Your task to perform on an android device: refresh tabs in the chrome app Image 0: 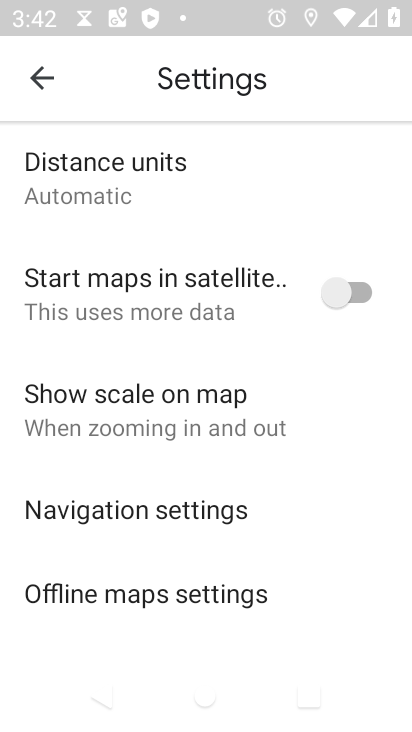
Step 0: press home button
Your task to perform on an android device: refresh tabs in the chrome app Image 1: 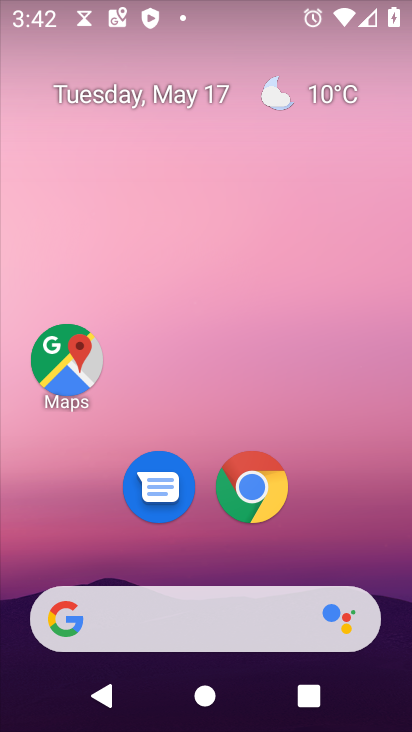
Step 1: click (249, 491)
Your task to perform on an android device: refresh tabs in the chrome app Image 2: 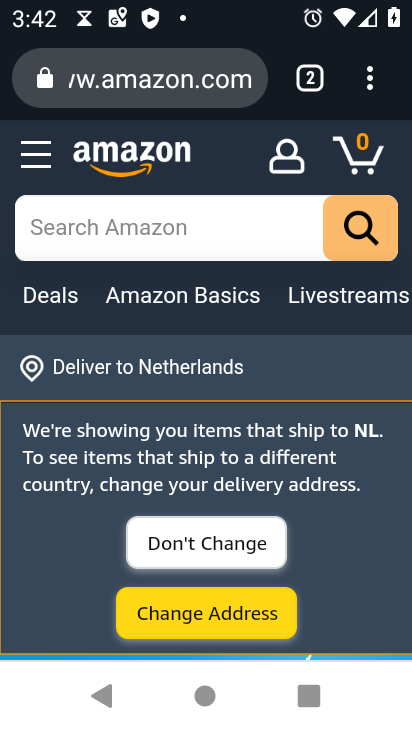
Step 2: click (369, 95)
Your task to perform on an android device: refresh tabs in the chrome app Image 3: 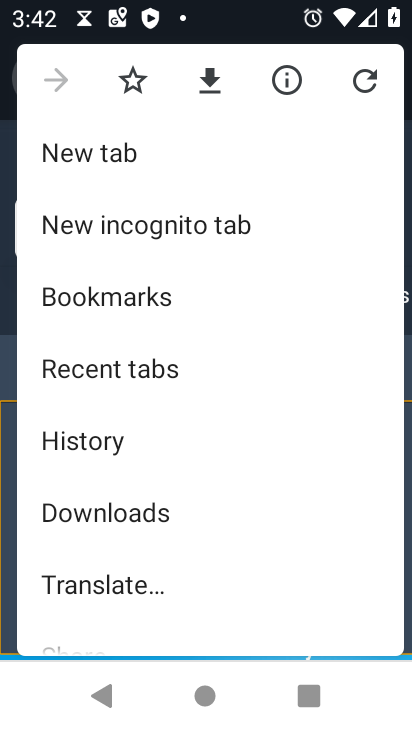
Step 3: click (369, 82)
Your task to perform on an android device: refresh tabs in the chrome app Image 4: 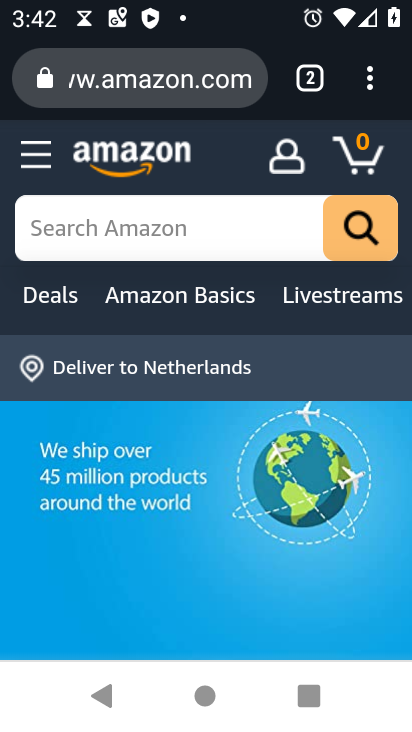
Step 4: task complete